Your task to perform on an android device: When is my next meeting? Image 0: 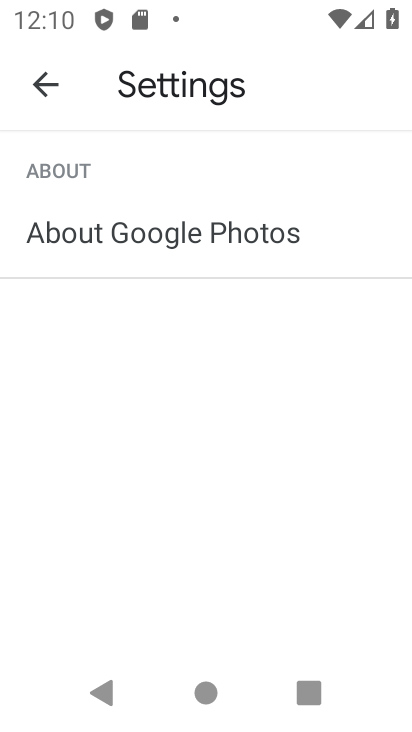
Step 0: press back button
Your task to perform on an android device: When is my next meeting? Image 1: 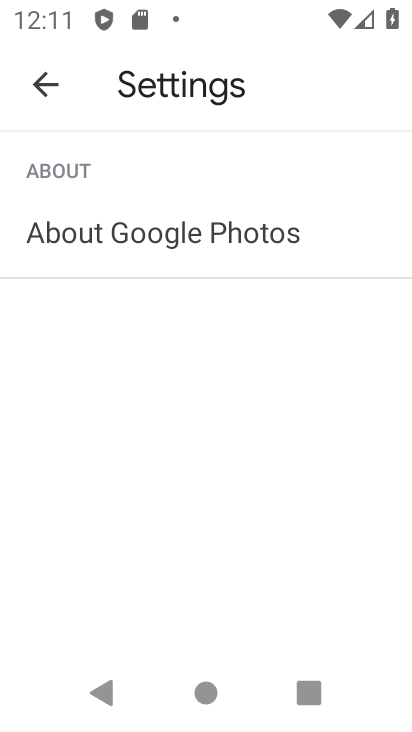
Step 1: press back button
Your task to perform on an android device: When is my next meeting? Image 2: 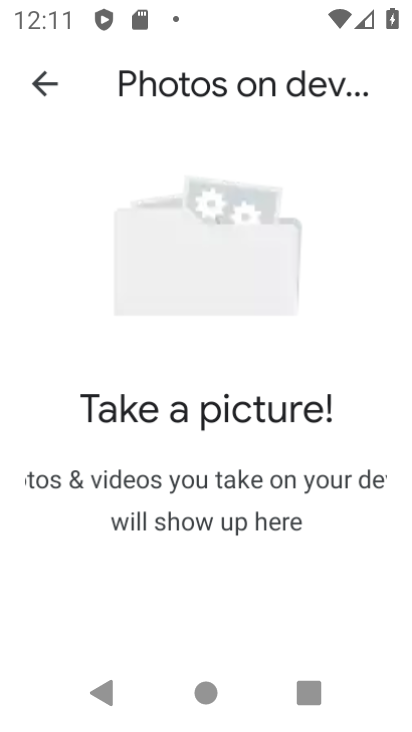
Step 2: press home button
Your task to perform on an android device: When is my next meeting? Image 3: 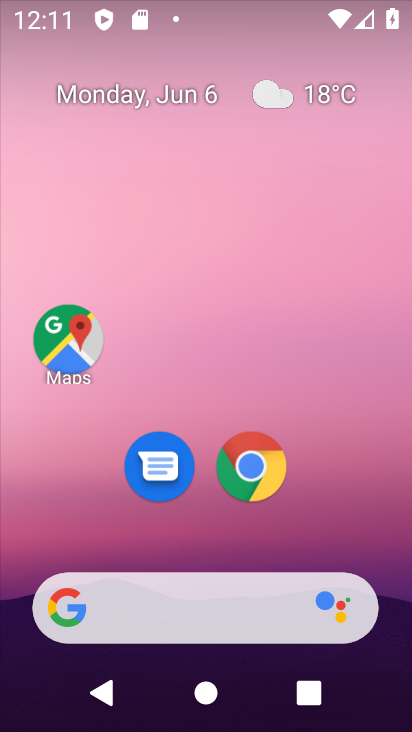
Step 3: drag from (345, 530) to (249, 27)
Your task to perform on an android device: When is my next meeting? Image 4: 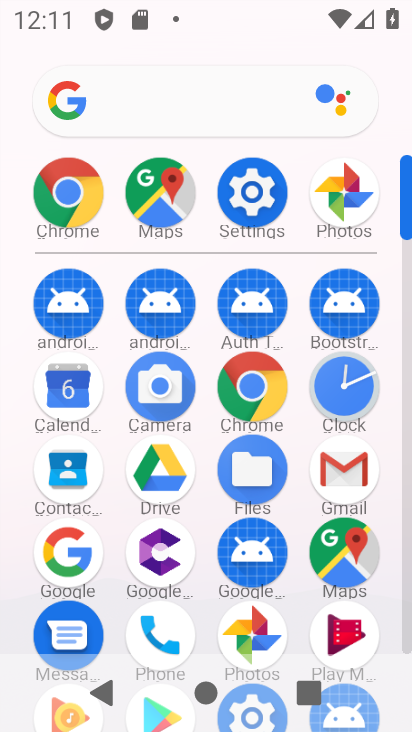
Step 4: click (66, 381)
Your task to perform on an android device: When is my next meeting? Image 5: 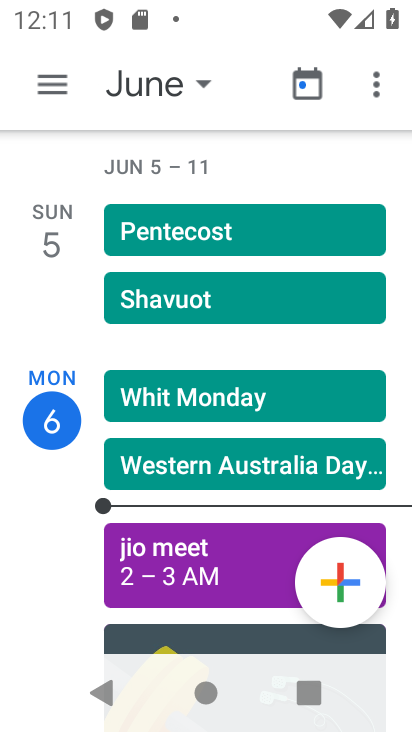
Step 5: click (55, 74)
Your task to perform on an android device: When is my next meeting? Image 6: 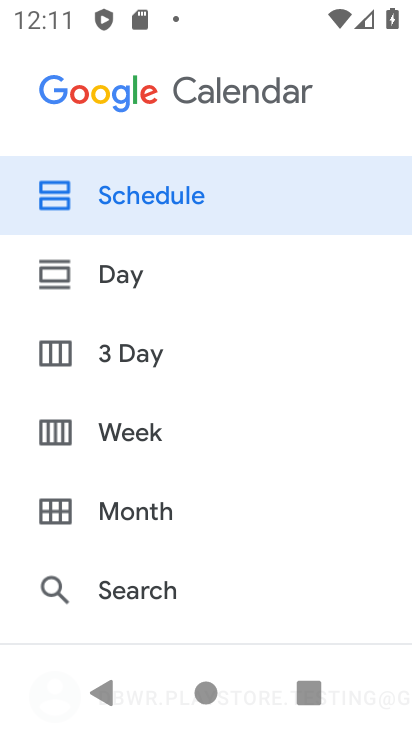
Step 6: click (171, 198)
Your task to perform on an android device: When is my next meeting? Image 7: 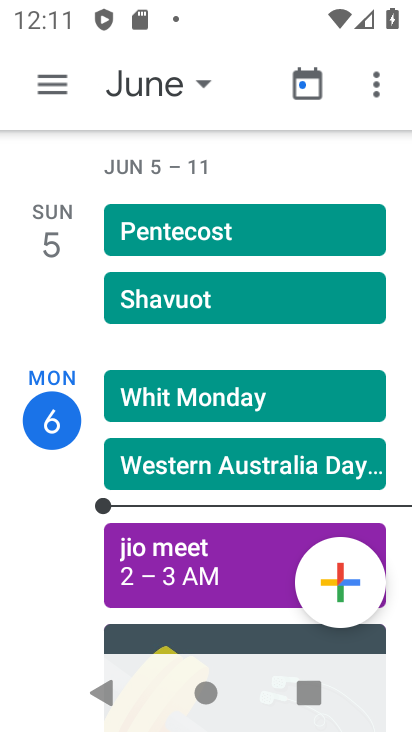
Step 7: task complete